Your task to perform on an android device: choose inbox layout in the gmail app Image 0: 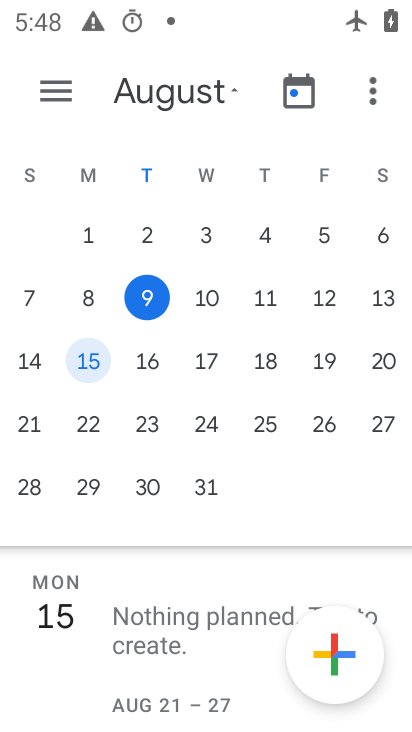
Step 0: press home button
Your task to perform on an android device: choose inbox layout in the gmail app Image 1: 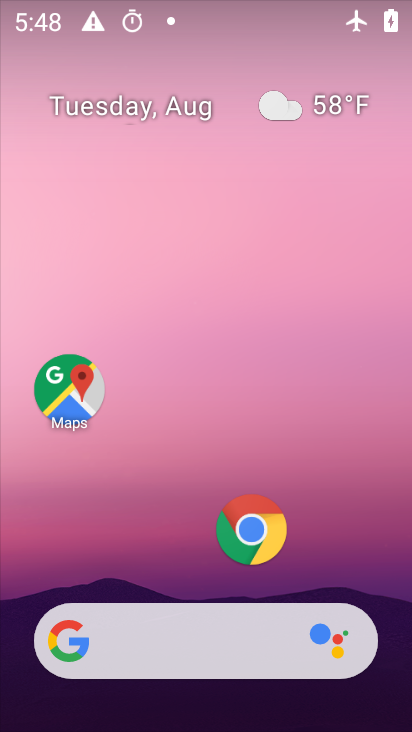
Step 1: drag from (171, 474) to (187, 181)
Your task to perform on an android device: choose inbox layout in the gmail app Image 2: 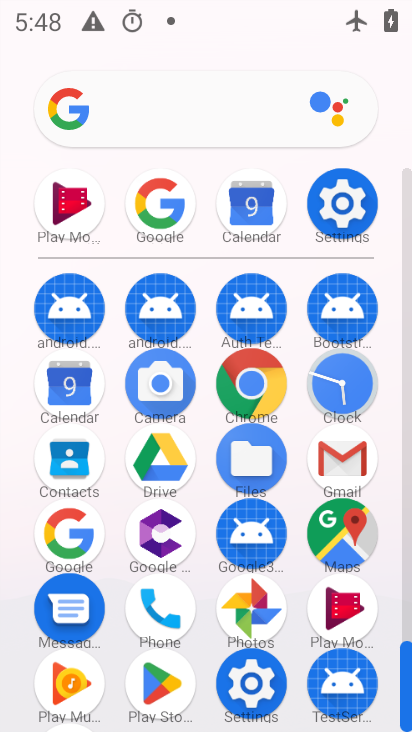
Step 2: click (338, 462)
Your task to perform on an android device: choose inbox layout in the gmail app Image 3: 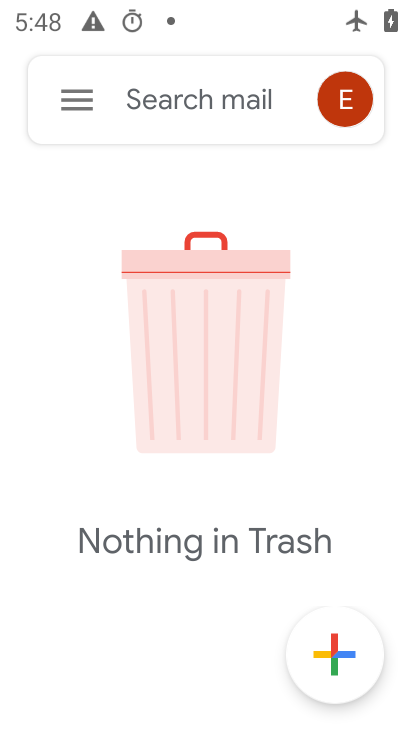
Step 3: click (80, 105)
Your task to perform on an android device: choose inbox layout in the gmail app Image 4: 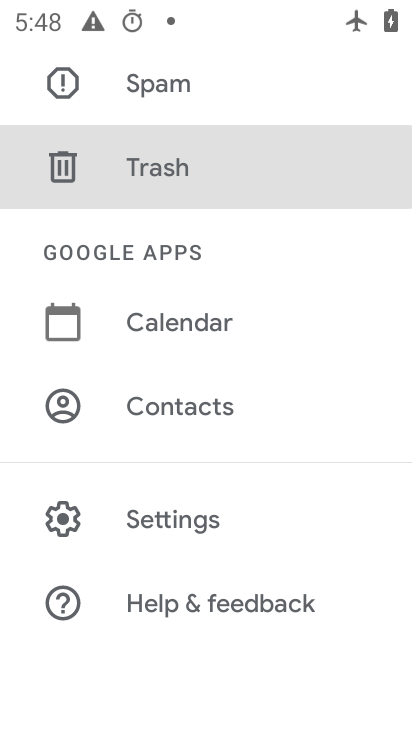
Step 4: click (174, 516)
Your task to perform on an android device: choose inbox layout in the gmail app Image 5: 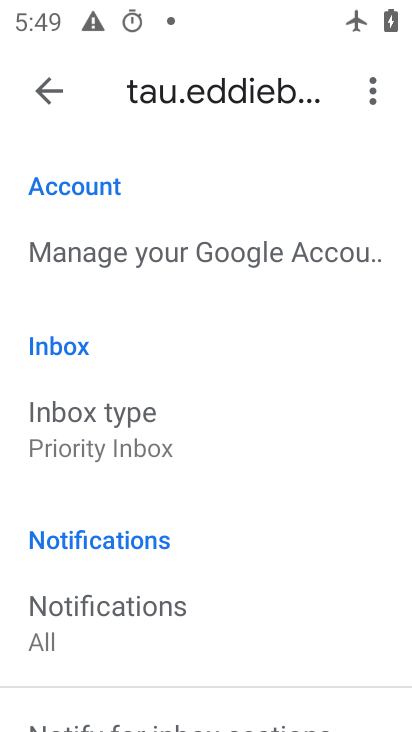
Step 5: click (95, 447)
Your task to perform on an android device: choose inbox layout in the gmail app Image 6: 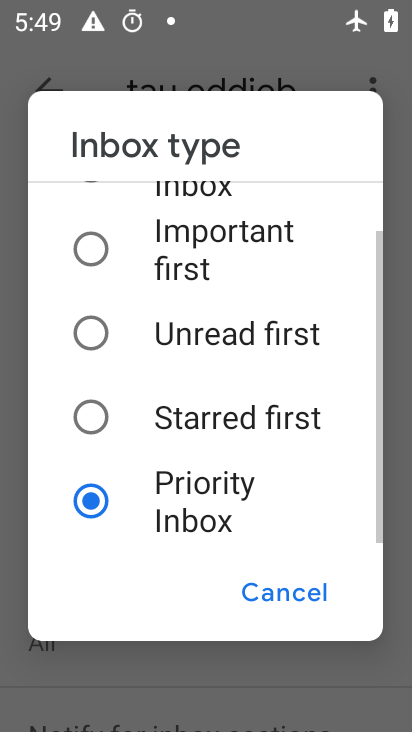
Step 6: drag from (194, 220) to (188, 457)
Your task to perform on an android device: choose inbox layout in the gmail app Image 7: 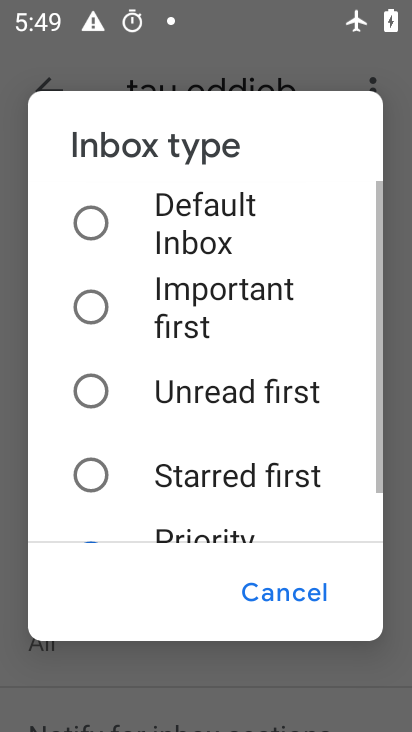
Step 7: click (165, 235)
Your task to perform on an android device: choose inbox layout in the gmail app Image 8: 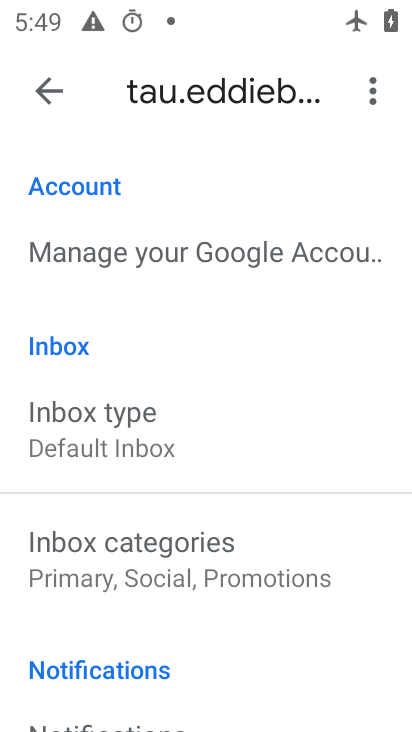
Step 8: task complete